Your task to perform on an android device: see tabs open on other devices in the chrome app Image 0: 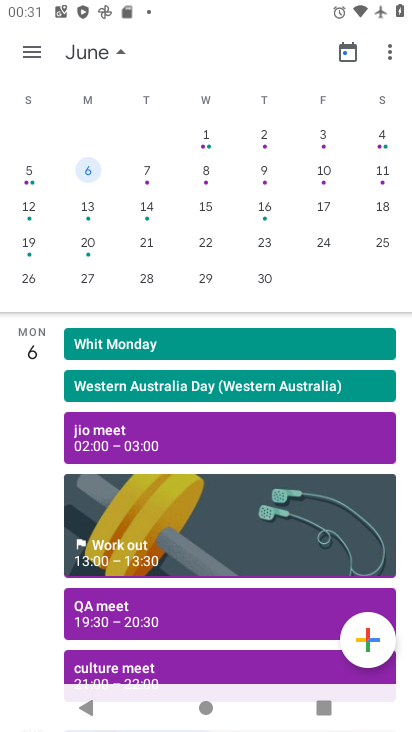
Step 0: press home button
Your task to perform on an android device: see tabs open on other devices in the chrome app Image 1: 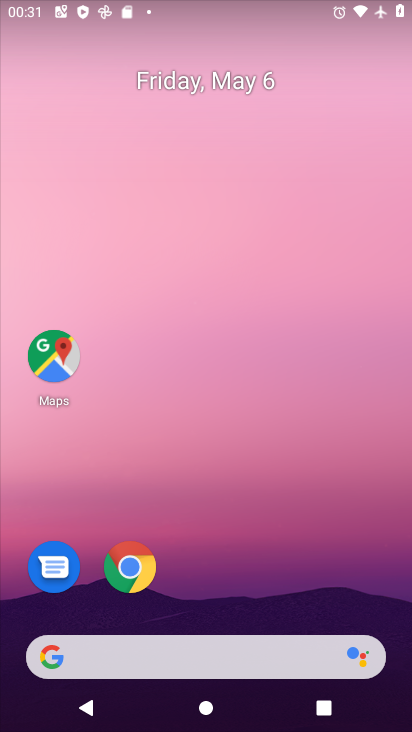
Step 1: click (152, 573)
Your task to perform on an android device: see tabs open on other devices in the chrome app Image 2: 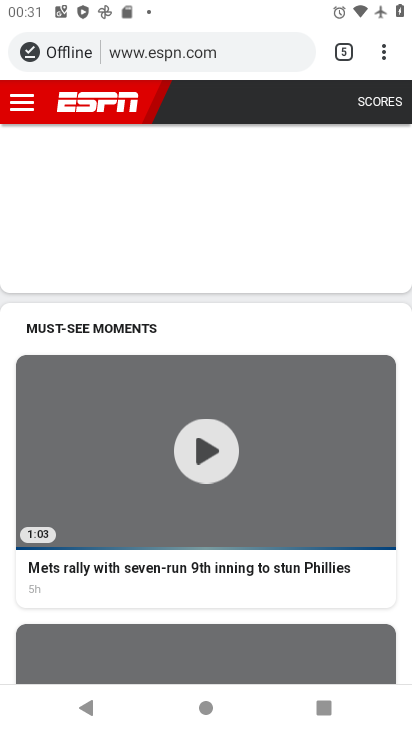
Step 2: click (377, 55)
Your task to perform on an android device: see tabs open on other devices in the chrome app Image 3: 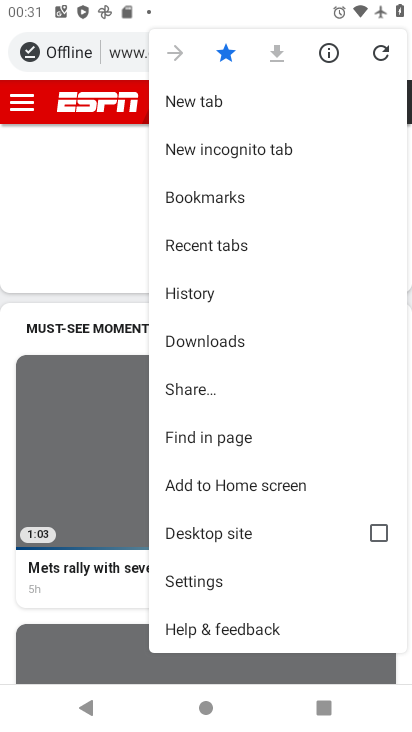
Step 3: click (231, 244)
Your task to perform on an android device: see tabs open on other devices in the chrome app Image 4: 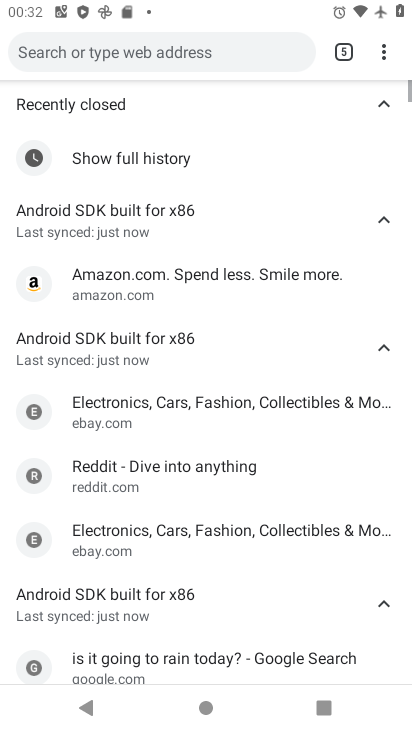
Step 4: task complete